Your task to perform on an android device: clear all cookies in the chrome app Image 0: 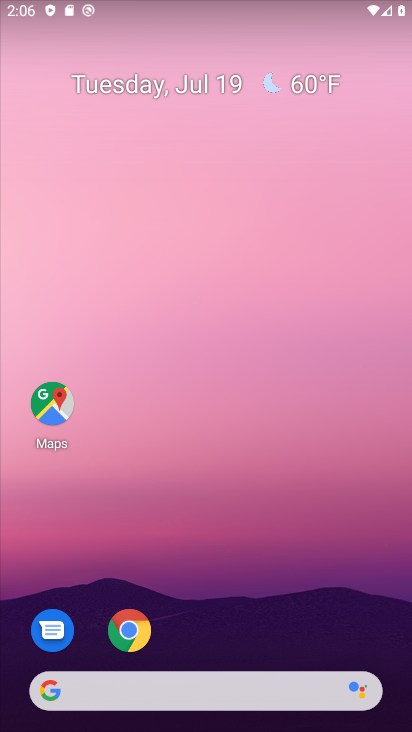
Step 0: click (217, 263)
Your task to perform on an android device: clear all cookies in the chrome app Image 1: 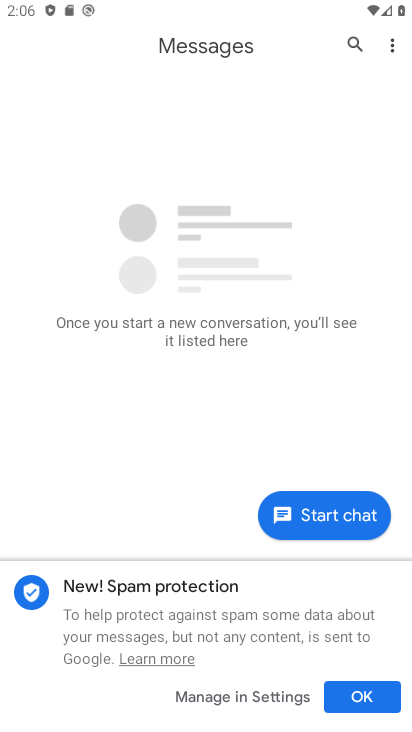
Step 1: drag from (225, 593) to (139, 181)
Your task to perform on an android device: clear all cookies in the chrome app Image 2: 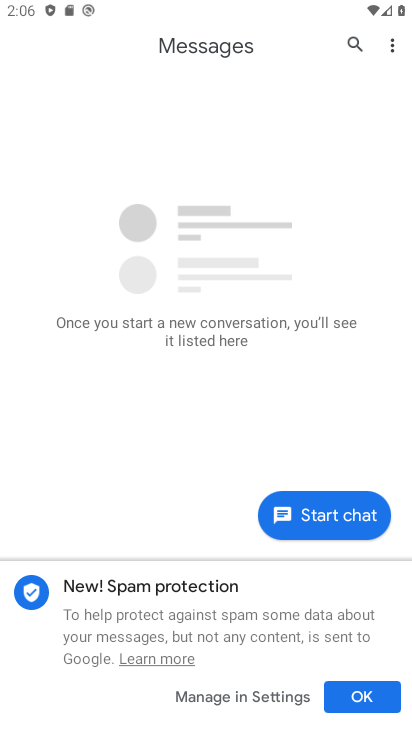
Step 2: press back button
Your task to perform on an android device: clear all cookies in the chrome app Image 3: 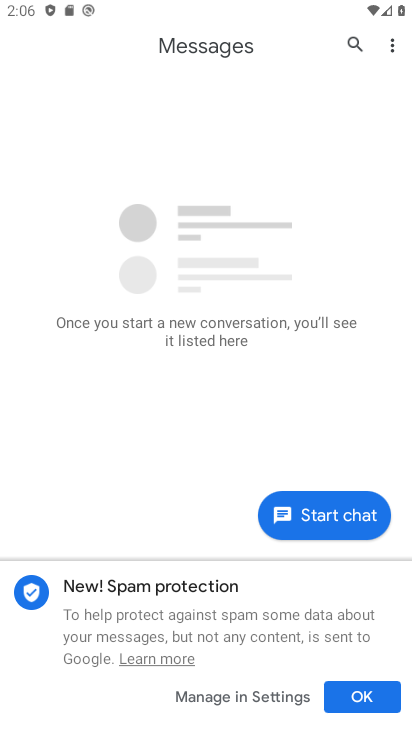
Step 3: press back button
Your task to perform on an android device: clear all cookies in the chrome app Image 4: 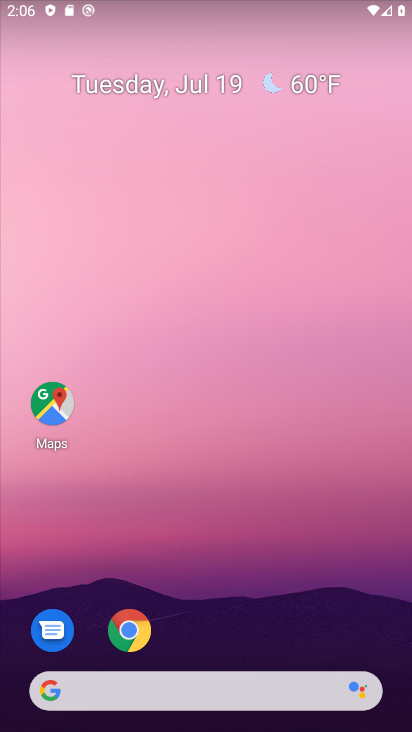
Step 4: drag from (215, 619) to (249, 63)
Your task to perform on an android device: clear all cookies in the chrome app Image 5: 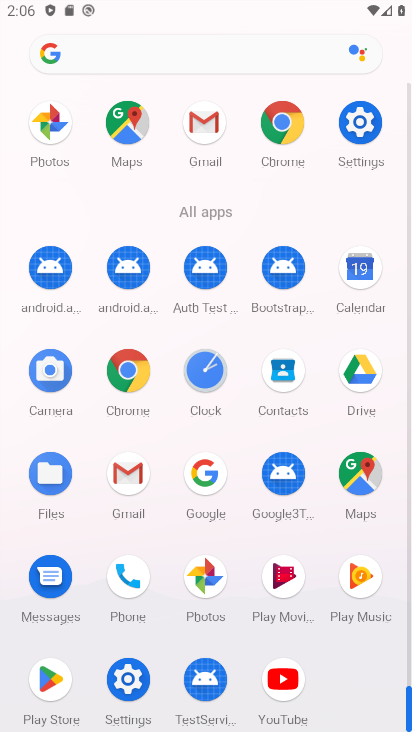
Step 5: click (360, 118)
Your task to perform on an android device: clear all cookies in the chrome app Image 6: 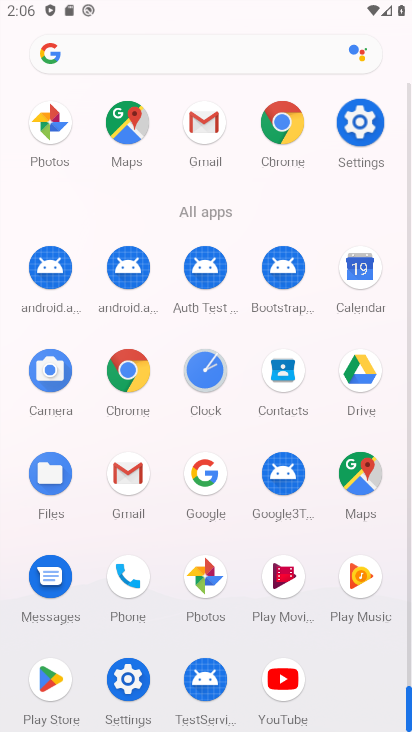
Step 6: click (360, 118)
Your task to perform on an android device: clear all cookies in the chrome app Image 7: 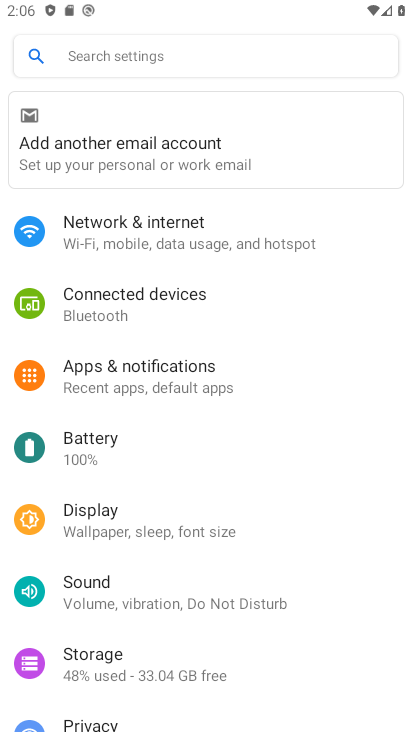
Step 7: press back button
Your task to perform on an android device: clear all cookies in the chrome app Image 8: 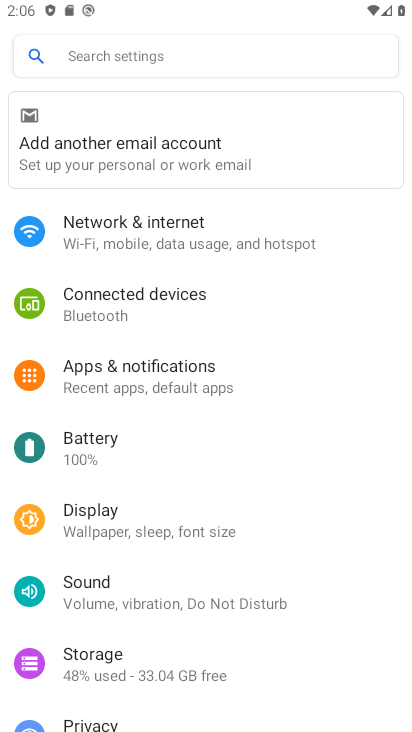
Step 8: press back button
Your task to perform on an android device: clear all cookies in the chrome app Image 9: 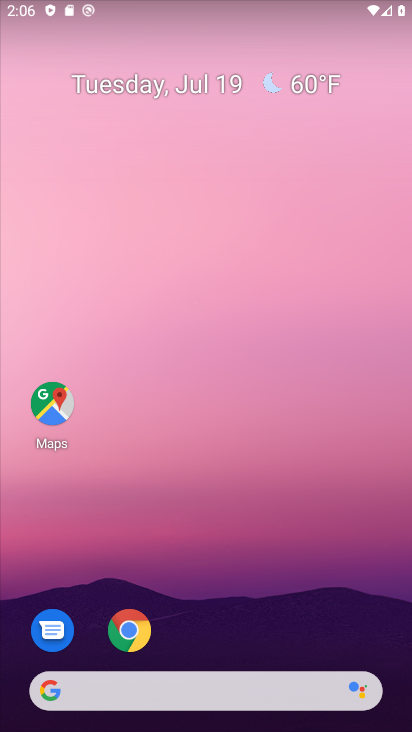
Step 9: drag from (199, 582) to (187, 106)
Your task to perform on an android device: clear all cookies in the chrome app Image 10: 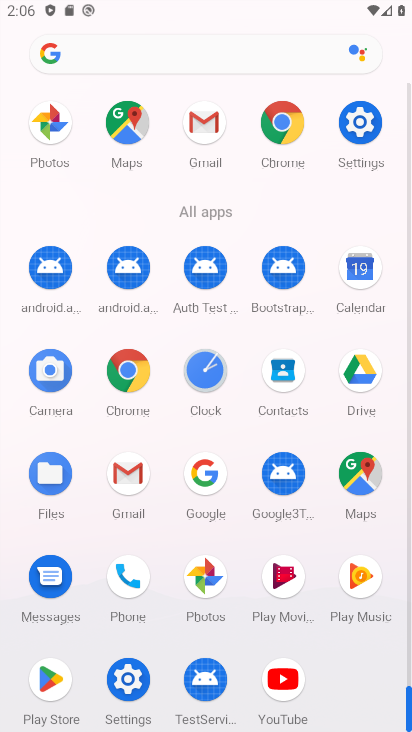
Step 10: click (138, 354)
Your task to perform on an android device: clear all cookies in the chrome app Image 11: 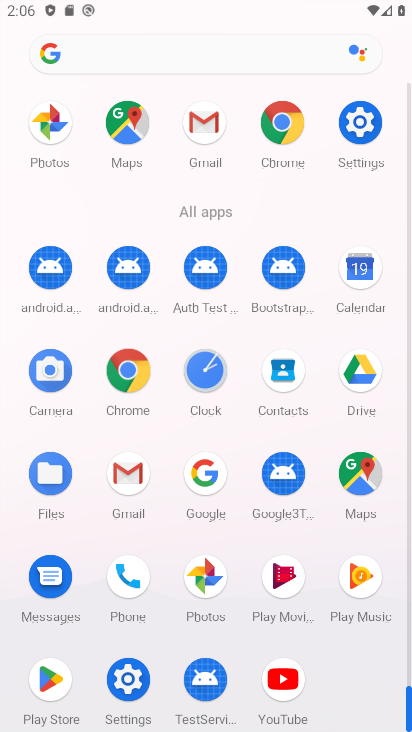
Step 11: click (133, 363)
Your task to perform on an android device: clear all cookies in the chrome app Image 12: 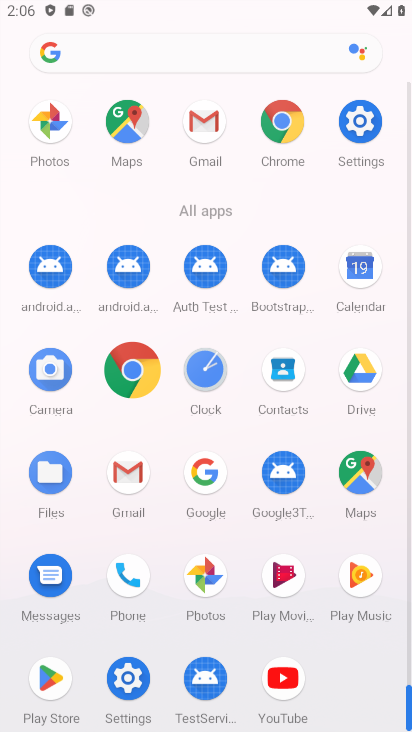
Step 12: click (132, 364)
Your task to perform on an android device: clear all cookies in the chrome app Image 13: 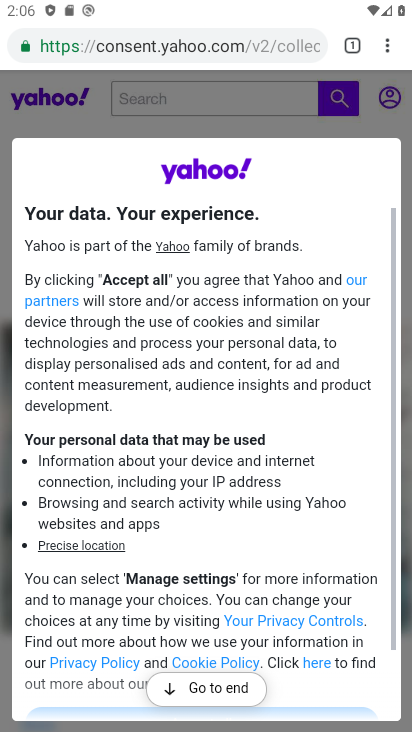
Step 13: drag from (381, 39) to (235, 552)
Your task to perform on an android device: clear all cookies in the chrome app Image 14: 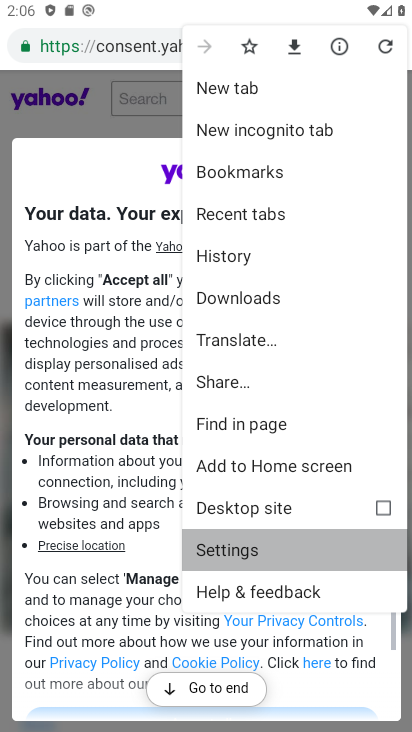
Step 14: click (239, 557)
Your task to perform on an android device: clear all cookies in the chrome app Image 15: 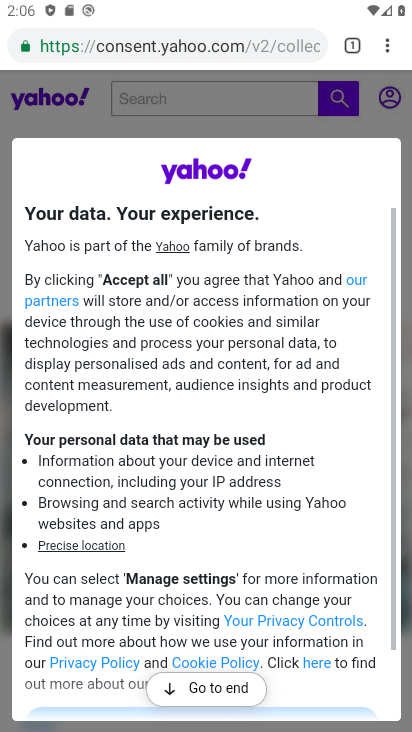
Step 15: click (244, 559)
Your task to perform on an android device: clear all cookies in the chrome app Image 16: 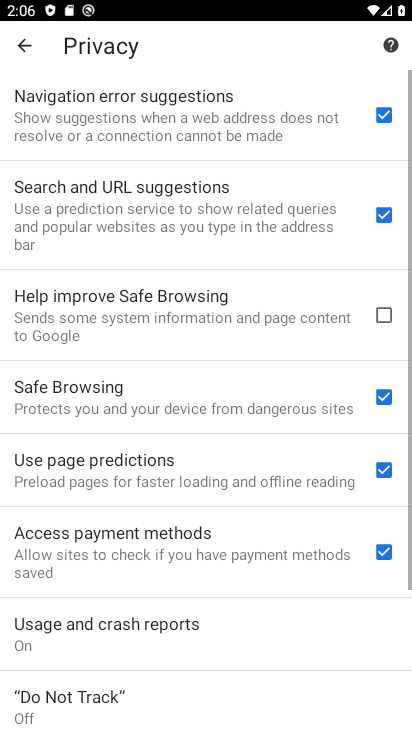
Step 16: click (16, 39)
Your task to perform on an android device: clear all cookies in the chrome app Image 17: 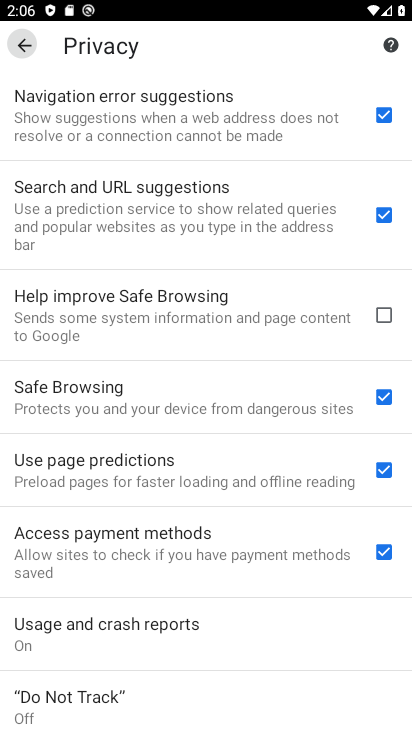
Step 17: click (17, 38)
Your task to perform on an android device: clear all cookies in the chrome app Image 18: 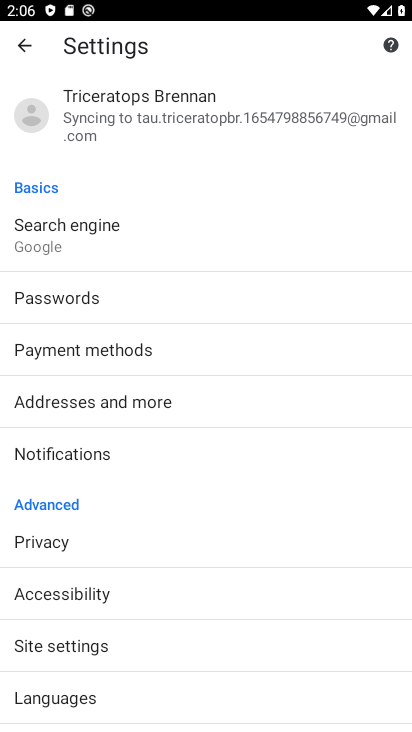
Step 18: click (54, 664)
Your task to perform on an android device: clear all cookies in the chrome app Image 19: 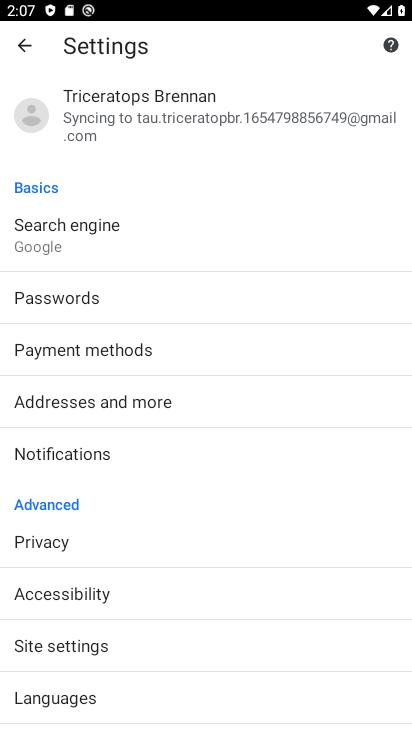
Step 19: click (43, 642)
Your task to perform on an android device: clear all cookies in the chrome app Image 20: 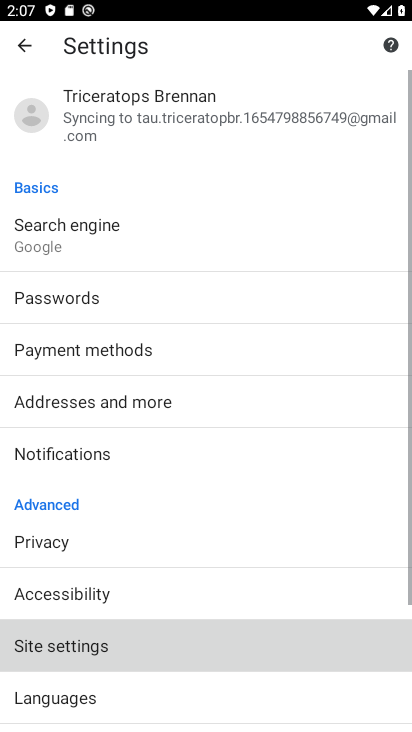
Step 20: click (46, 648)
Your task to perform on an android device: clear all cookies in the chrome app Image 21: 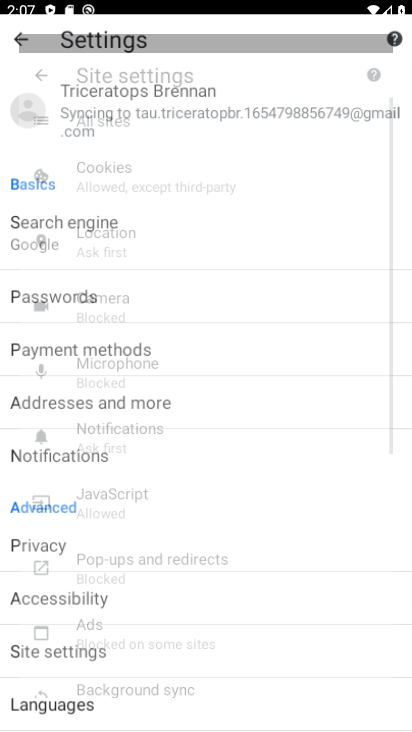
Step 21: click (47, 649)
Your task to perform on an android device: clear all cookies in the chrome app Image 22: 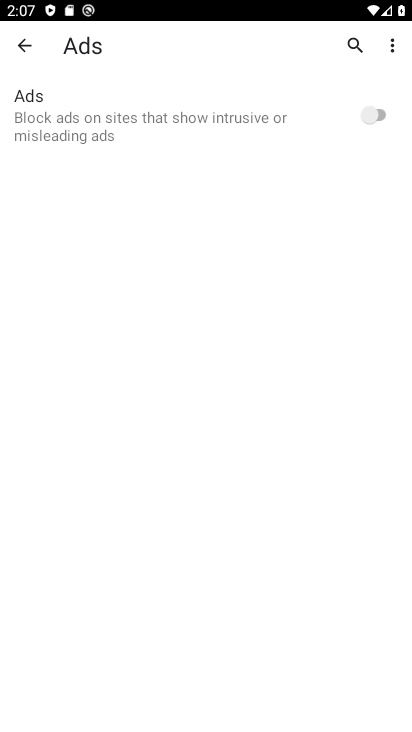
Step 22: click (16, 51)
Your task to perform on an android device: clear all cookies in the chrome app Image 23: 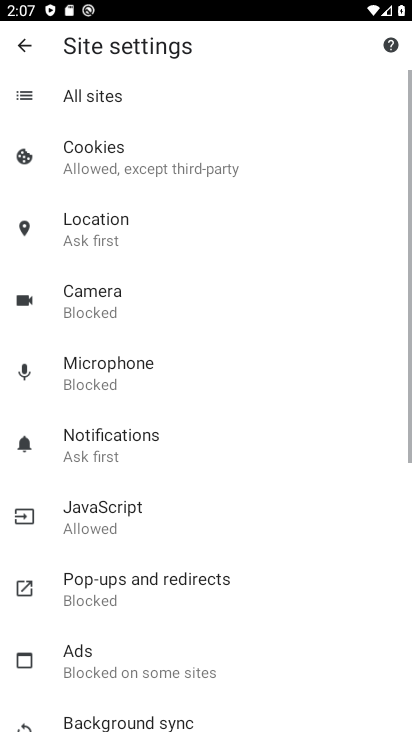
Step 23: click (73, 94)
Your task to perform on an android device: clear all cookies in the chrome app Image 24: 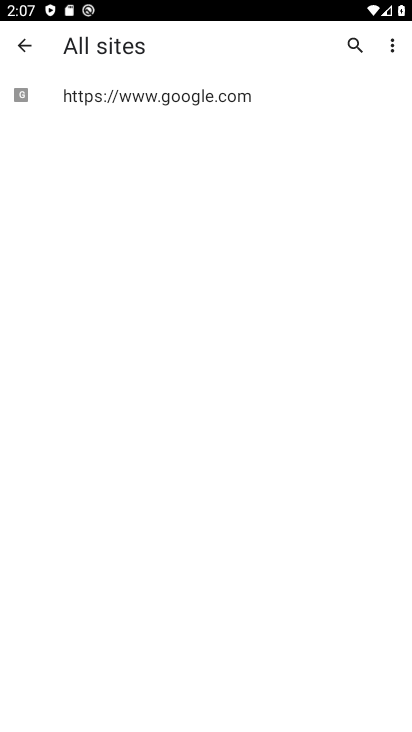
Step 24: click (23, 44)
Your task to perform on an android device: clear all cookies in the chrome app Image 25: 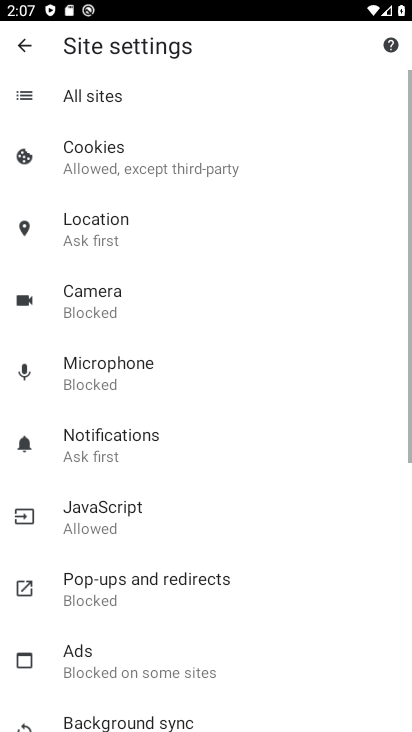
Step 25: click (101, 168)
Your task to perform on an android device: clear all cookies in the chrome app Image 26: 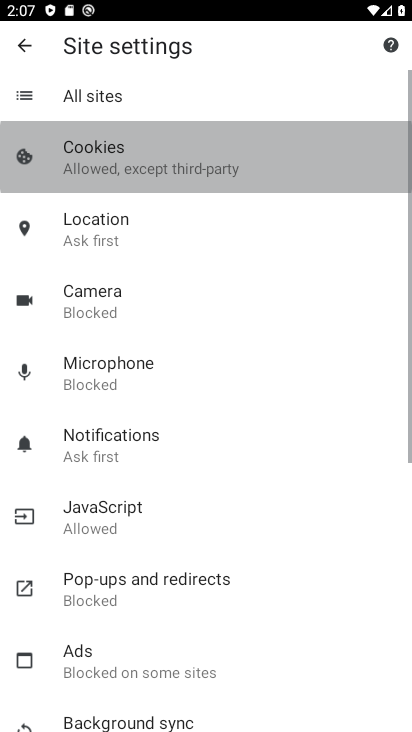
Step 26: click (106, 163)
Your task to perform on an android device: clear all cookies in the chrome app Image 27: 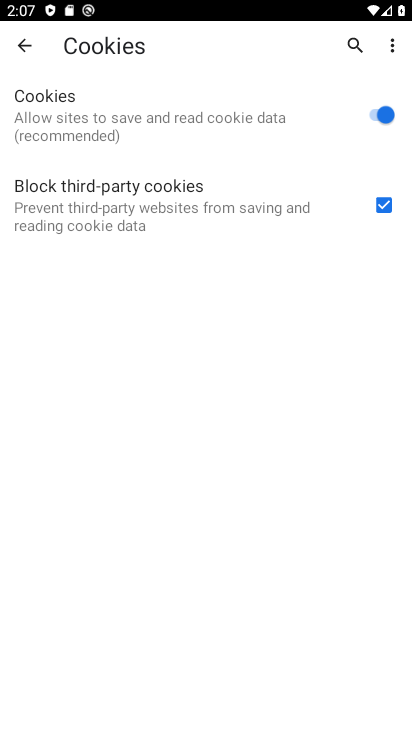
Step 27: click (148, 112)
Your task to perform on an android device: clear all cookies in the chrome app Image 28: 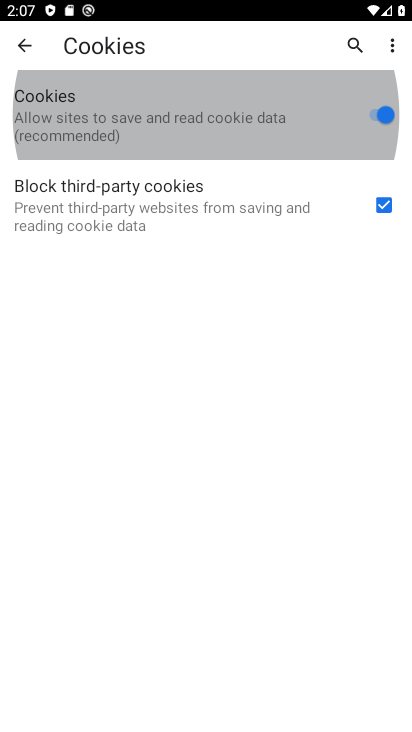
Step 28: click (148, 112)
Your task to perform on an android device: clear all cookies in the chrome app Image 29: 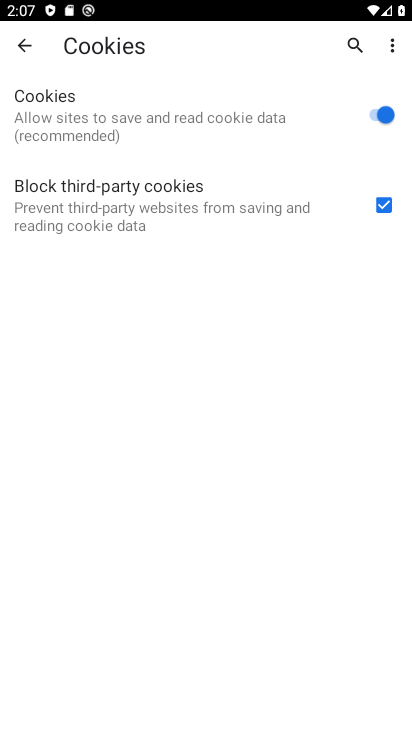
Step 29: click (381, 105)
Your task to perform on an android device: clear all cookies in the chrome app Image 30: 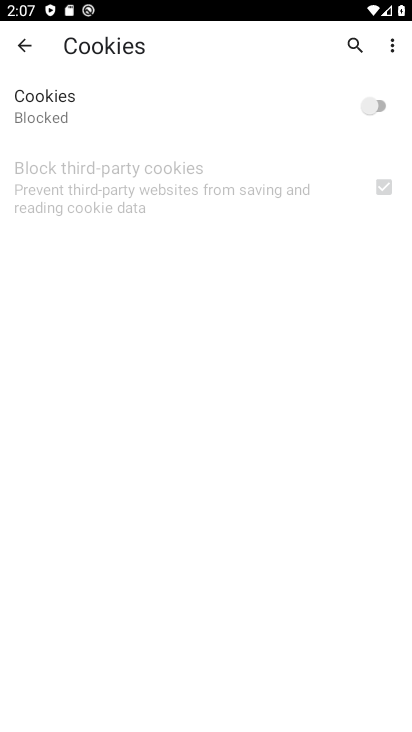
Step 30: task complete